Your task to perform on an android device: Open the web browser Image 0: 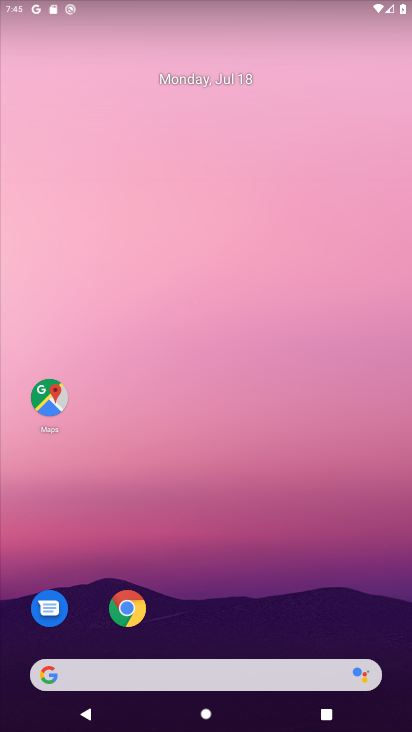
Step 0: drag from (180, 640) to (144, 90)
Your task to perform on an android device: Open the web browser Image 1: 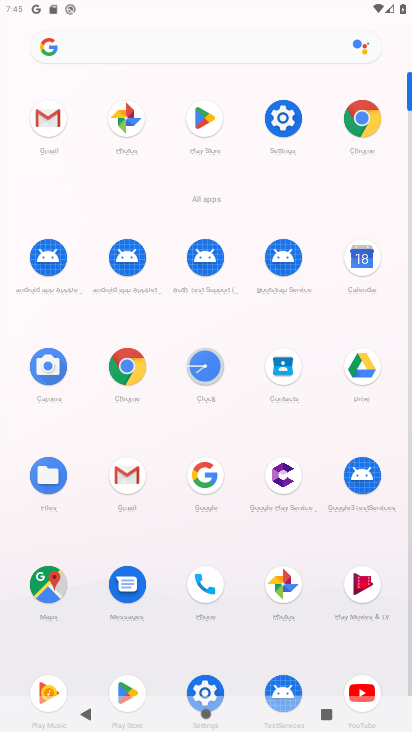
Step 1: click (213, 476)
Your task to perform on an android device: Open the web browser Image 2: 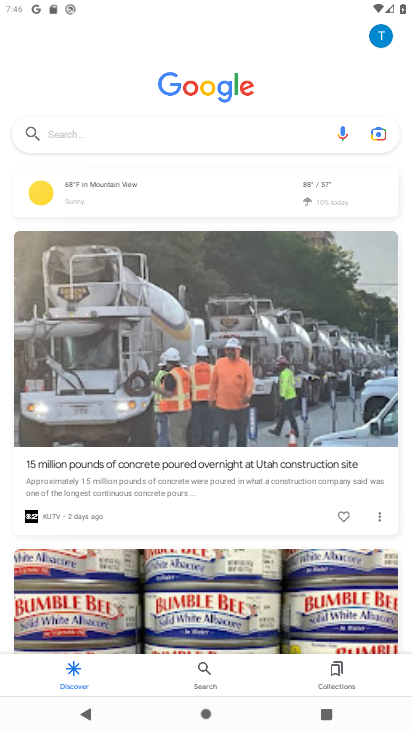
Step 2: click (144, 136)
Your task to perform on an android device: Open the web browser Image 3: 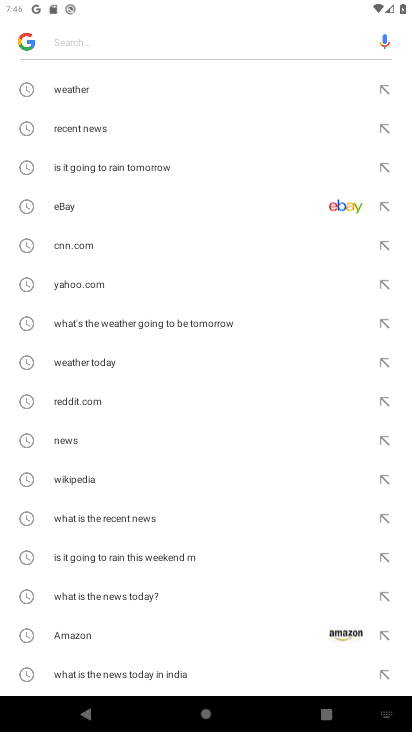
Step 3: task complete